Your task to perform on an android device: toggle airplane mode Image 0: 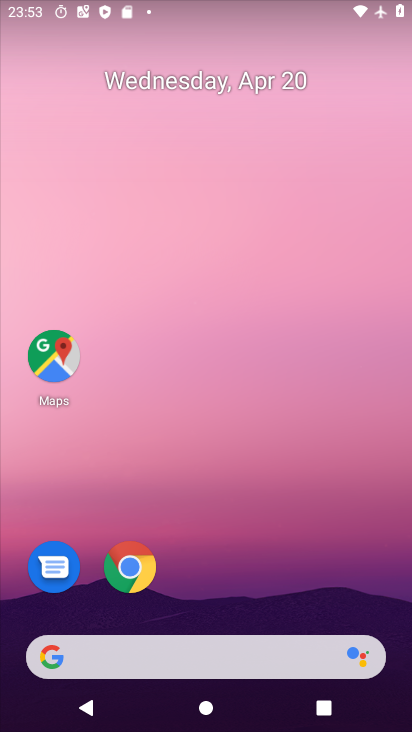
Step 0: click (229, 20)
Your task to perform on an android device: toggle airplane mode Image 1: 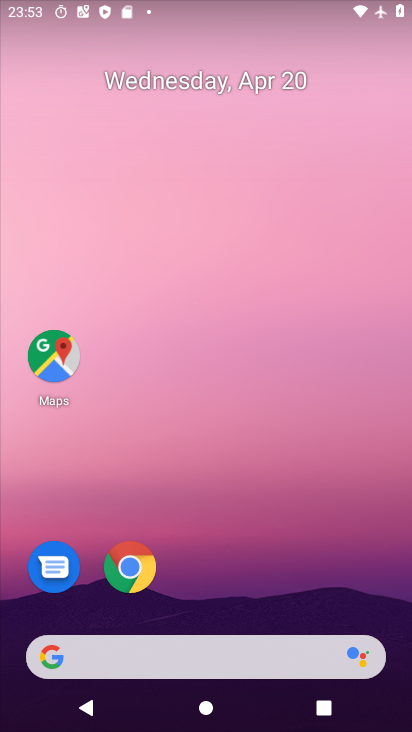
Step 1: click (241, 165)
Your task to perform on an android device: toggle airplane mode Image 2: 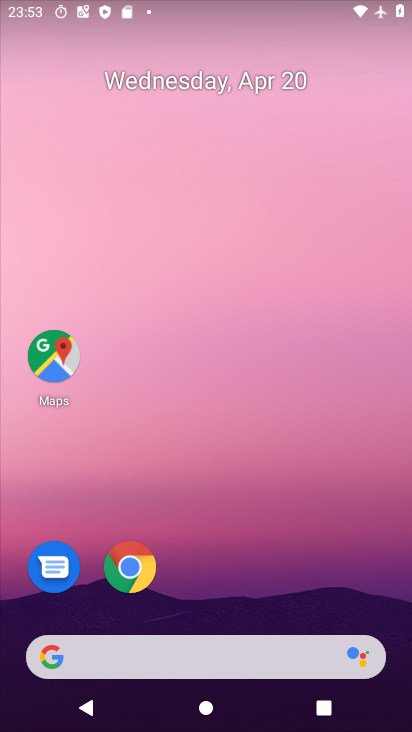
Step 2: click (270, 247)
Your task to perform on an android device: toggle airplane mode Image 3: 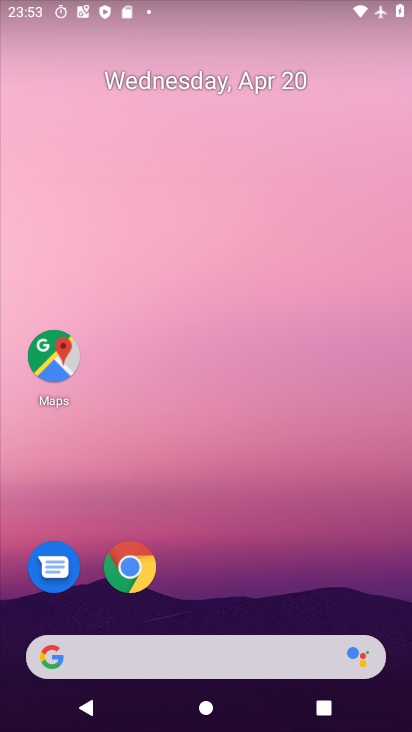
Step 3: drag from (249, 612) to (263, 104)
Your task to perform on an android device: toggle airplane mode Image 4: 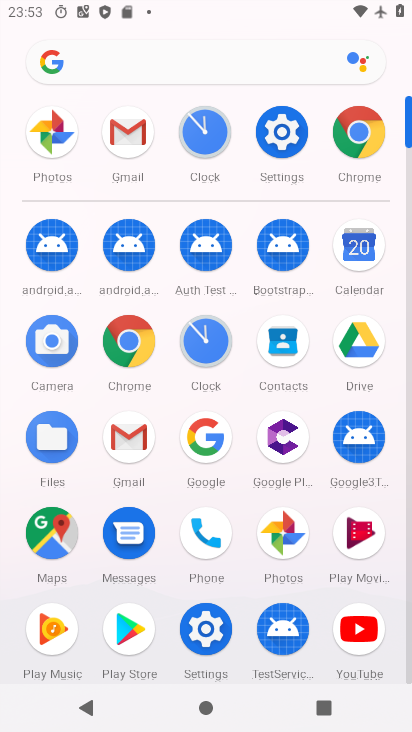
Step 4: click (280, 131)
Your task to perform on an android device: toggle airplane mode Image 5: 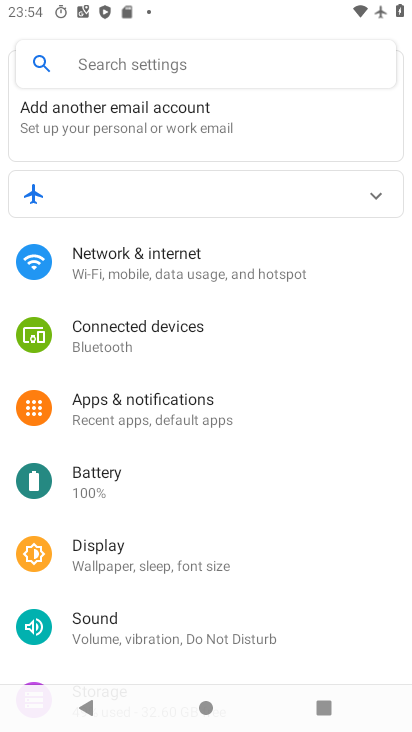
Step 5: click (164, 261)
Your task to perform on an android device: toggle airplane mode Image 6: 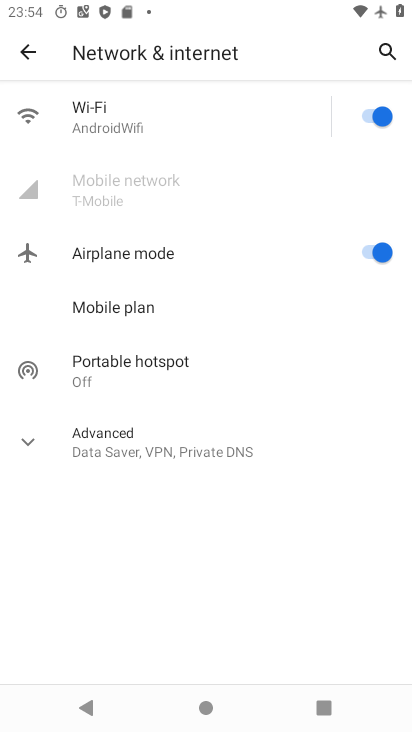
Step 6: click (373, 247)
Your task to perform on an android device: toggle airplane mode Image 7: 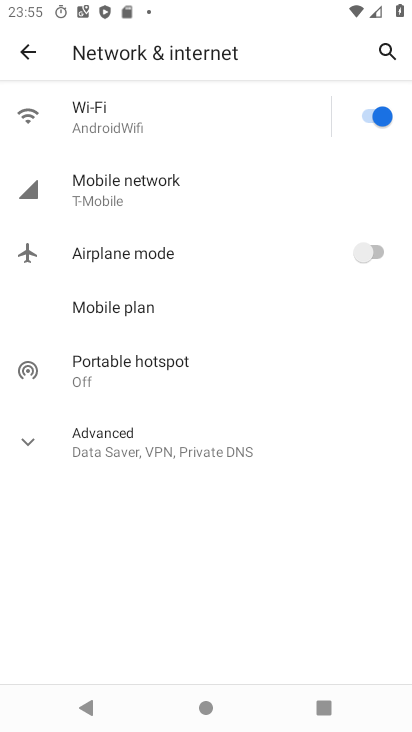
Step 7: task complete